Your task to perform on an android device: Go to location settings Image 0: 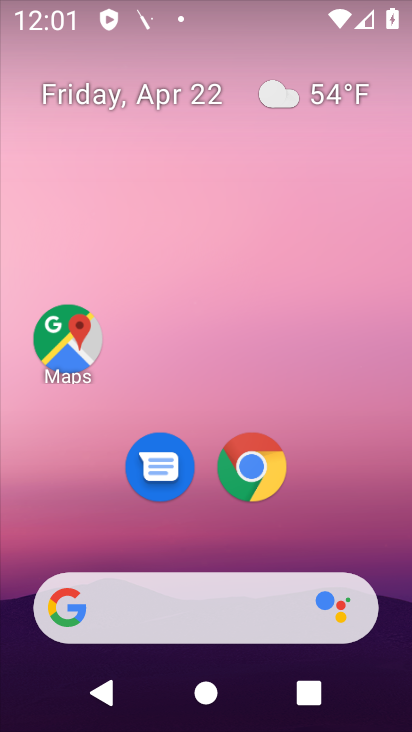
Step 0: drag from (401, 604) to (331, 127)
Your task to perform on an android device: Go to location settings Image 1: 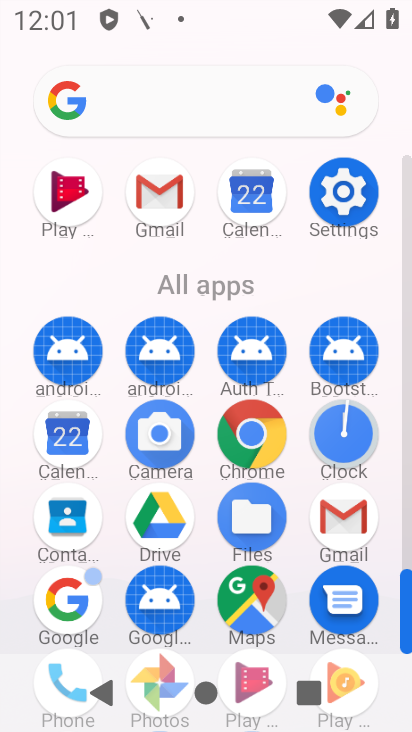
Step 1: drag from (404, 555) to (402, 510)
Your task to perform on an android device: Go to location settings Image 2: 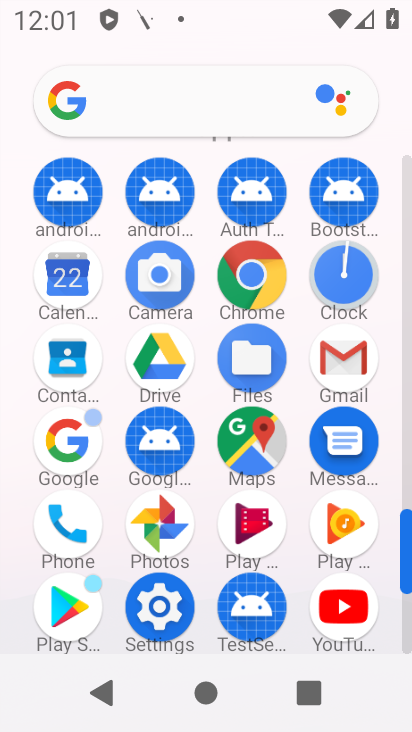
Step 2: click (169, 599)
Your task to perform on an android device: Go to location settings Image 3: 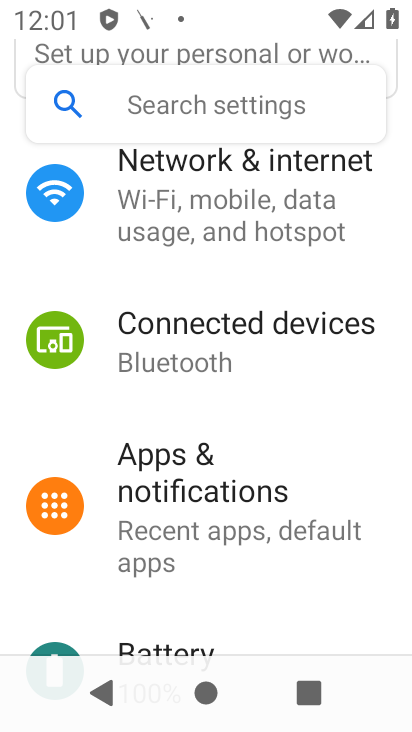
Step 3: drag from (340, 563) to (334, 275)
Your task to perform on an android device: Go to location settings Image 4: 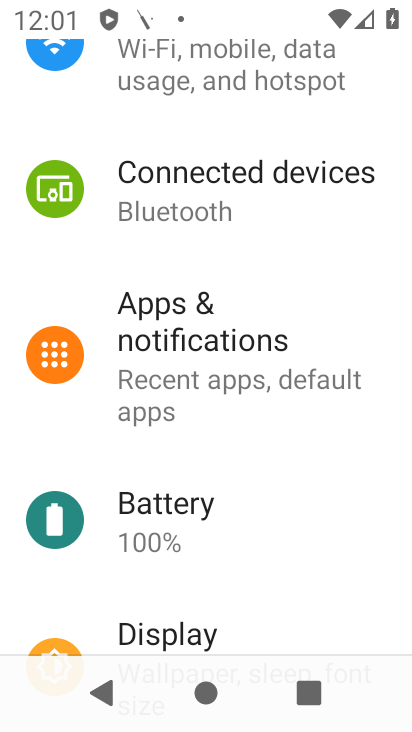
Step 4: drag from (298, 568) to (304, 334)
Your task to perform on an android device: Go to location settings Image 5: 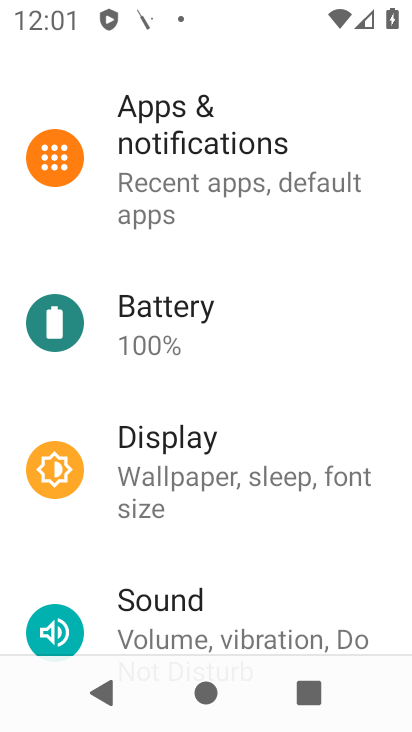
Step 5: drag from (267, 604) to (288, 294)
Your task to perform on an android device: Go to location settings Image 6: 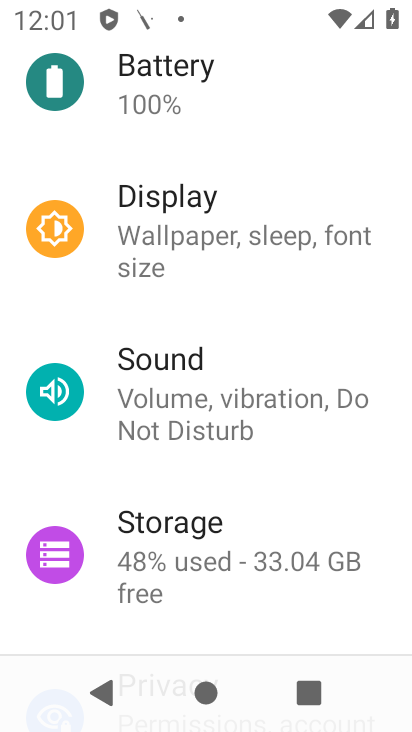
Step 6: drag from (298, 478) to (295, 194)
Your task to perform on an android device: Go to location settings Image 7: 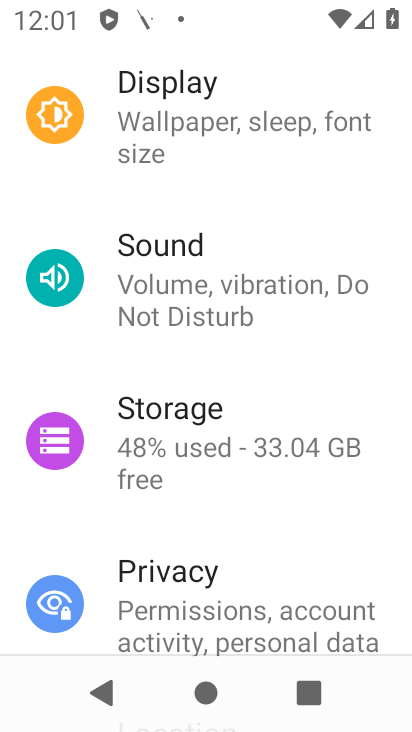
Step 7: drag from (293, 481) to (325, 134)
Your task to perform on an android device: Go to location settings Image 8: 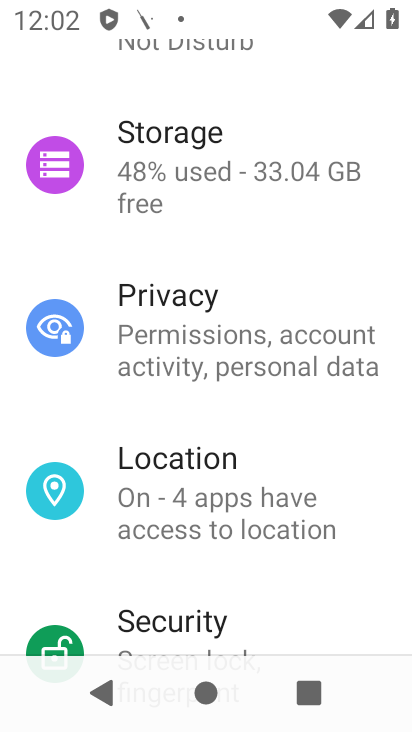
Step 8: click (214, 477)
Your task to perform on an android device: Go to location settings Image 9: 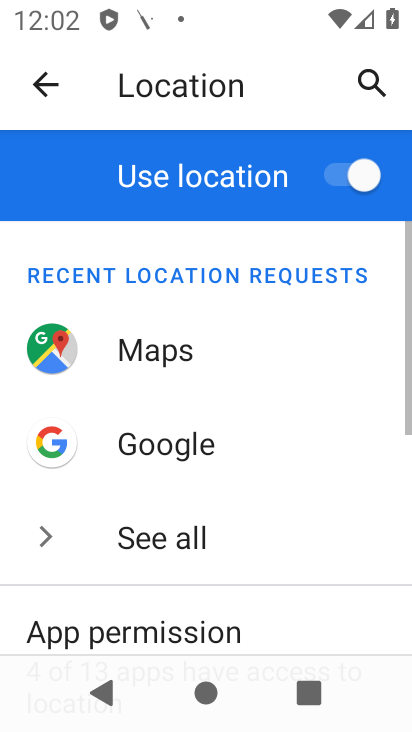
Step 9: task complete